Your task to perform on an android device: clear history in the chrome app Image 0: 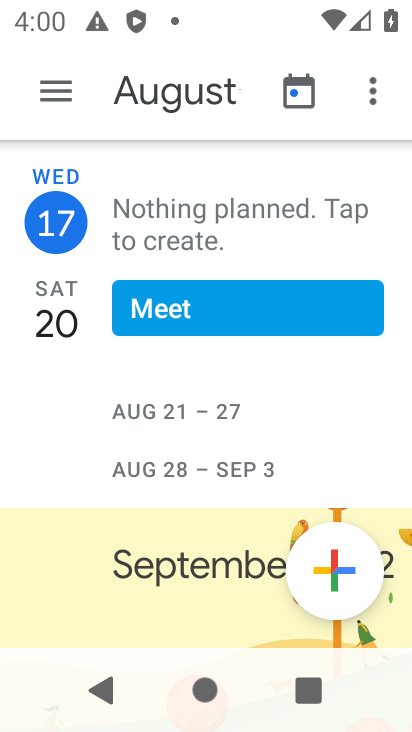
Step 0: press home button
Your task to perform on an android device: clear history in the chrome app Image 1: 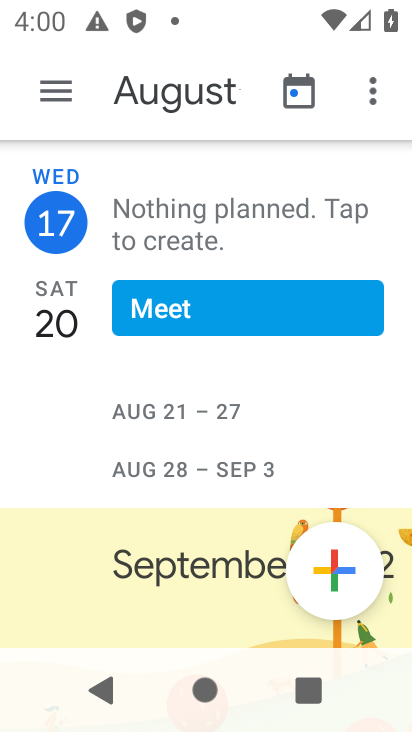
Step 1: press home button
Your task to perform on an android device: clear history in the chrome app Image 2: 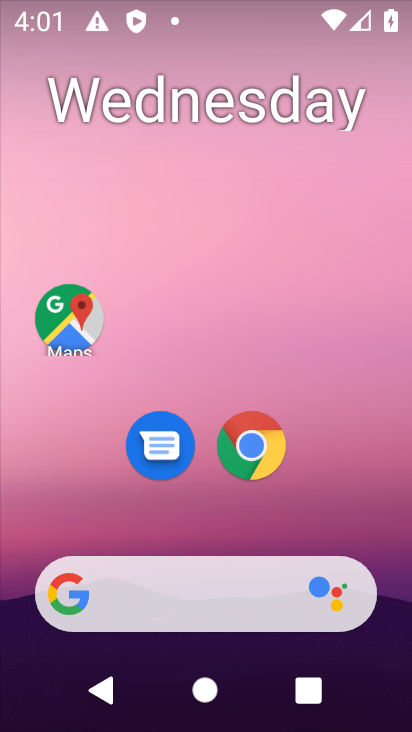
Step 2: drag from (352, 469) to (289, 58)
Your task to perform on an android device: clear history in the chrome app Image 3: 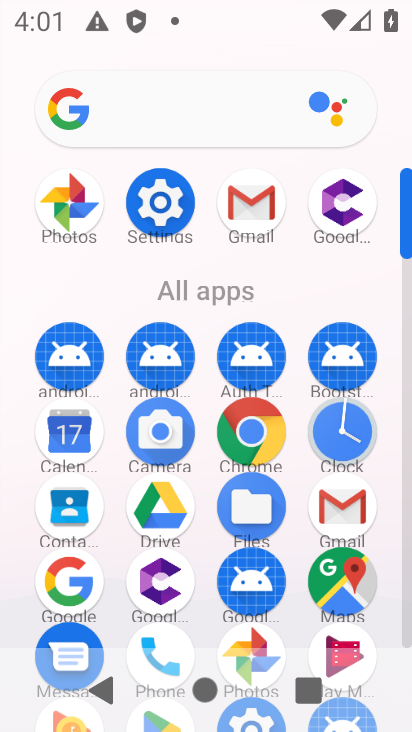
Step 3: click (253, 432)
Your task to perform on an android device: clear history in the chrome app Image 4: 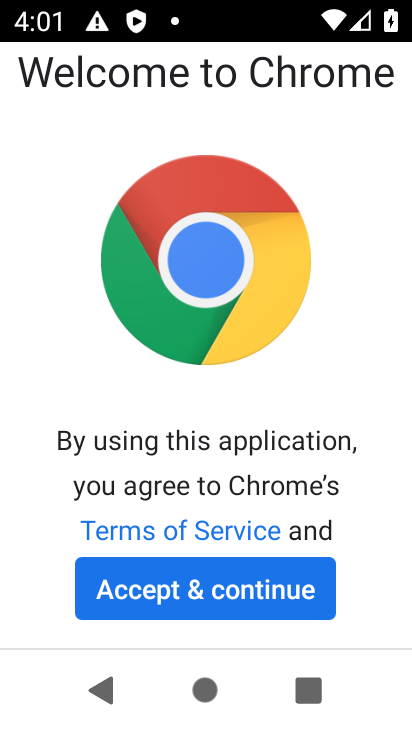
Step 4: click (255, 570)
Your task to perform on an android device: clear history in the chrome app Image 5: 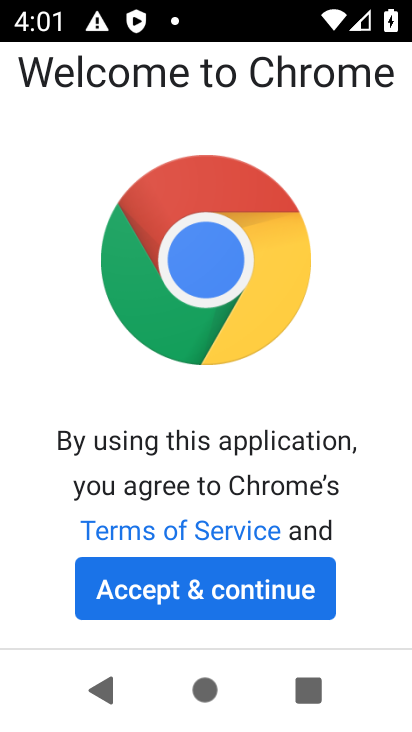
Step 5: click (256, 592)
Your task to perform on an android device: clear history in the chrome app Image 6: 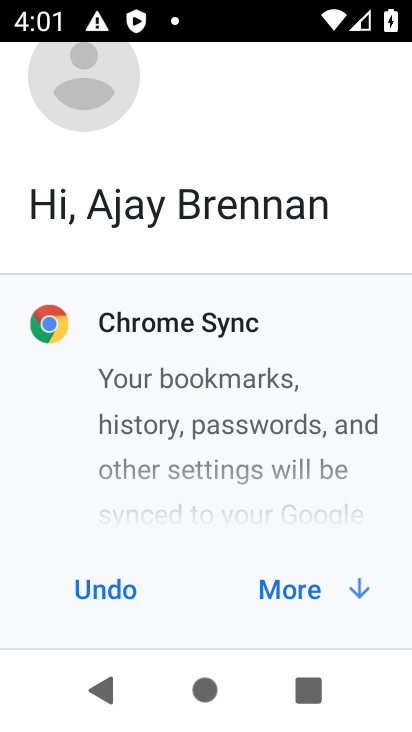
Step 6: click (292, 595)
Your task to perform on an android device: clear history in the chrome app Image 7: 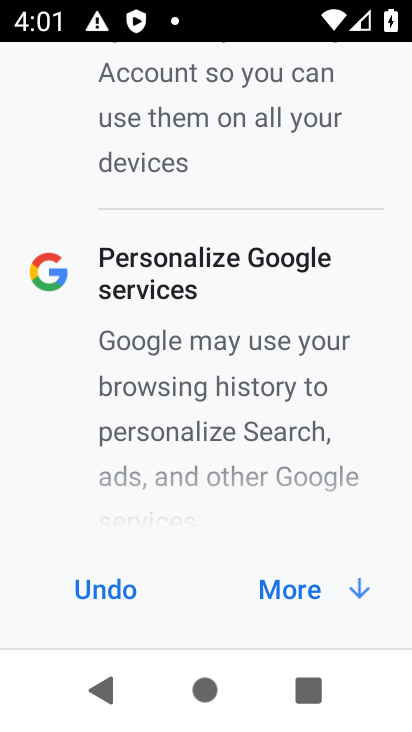
Step 7: click (292, 594)
Your task to perform on an android device: clear history in the chrome app Image 8: 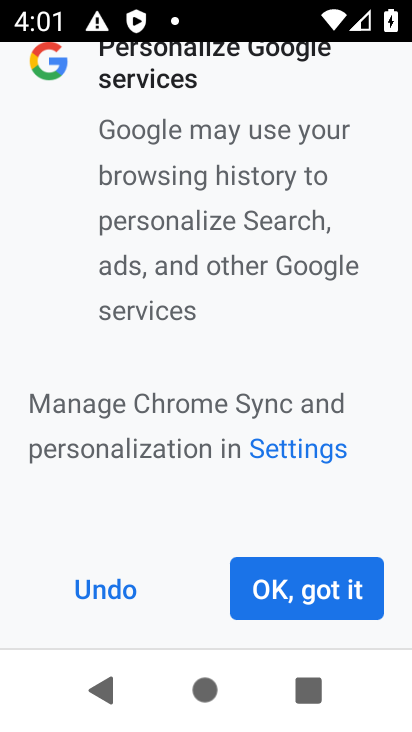
Step 8: click (296, 589)
Your task to perform on an android device: clear history in the chrome app Image 9: 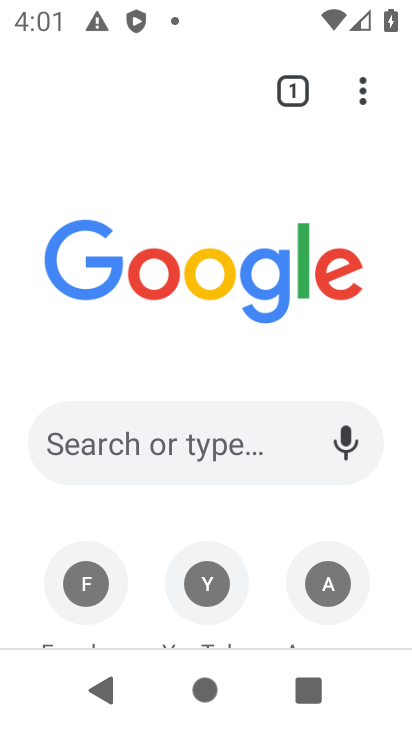
Step 9: drag from (379, 81) to (143, 236)
Your task to perform on an android device: clear history in the chrome app Image 10: 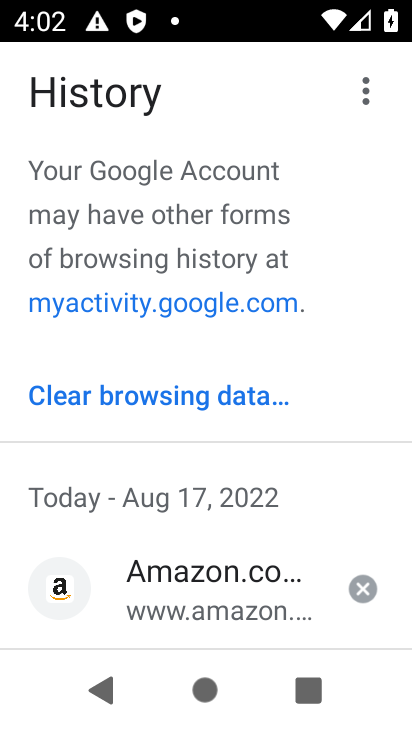
Step 10: click (195, 388)
Your task to perform on an android device: clear history in the chrome app Image 11: 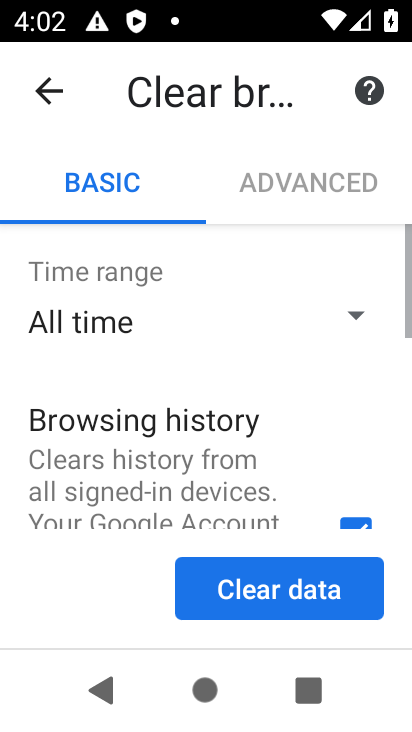
Step 11: click (315, 588)
Your task to perform on an android device: clear history in the chrome app Image 12: 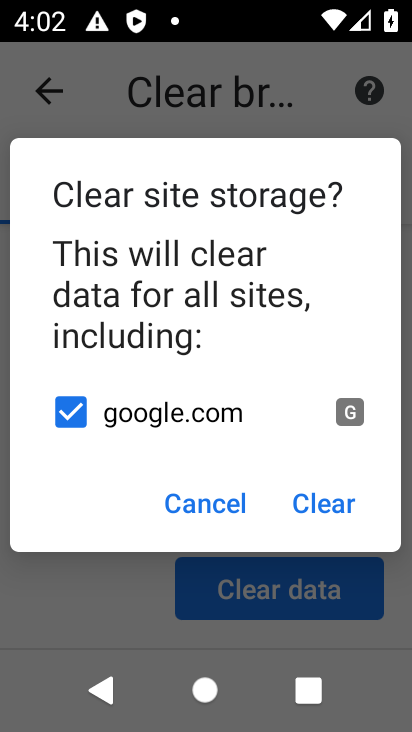
Step 12: click (343, 510)
Your task to perform on an android device: clear history in the chrome app Image 13: 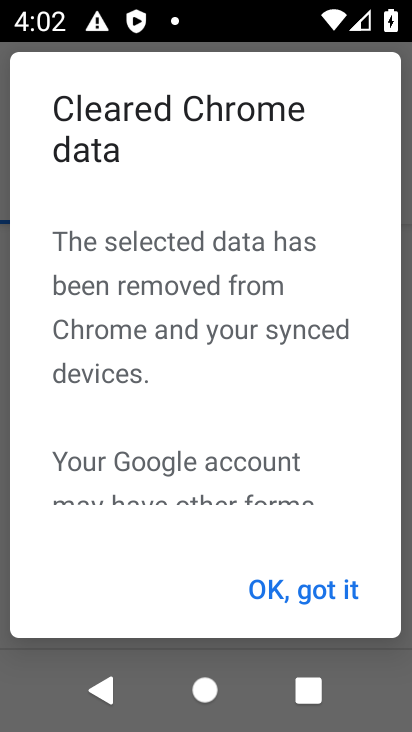
Step 13: task complete